Your task to perform on an android device: Search for sushi restaurants on Maps Image 0: 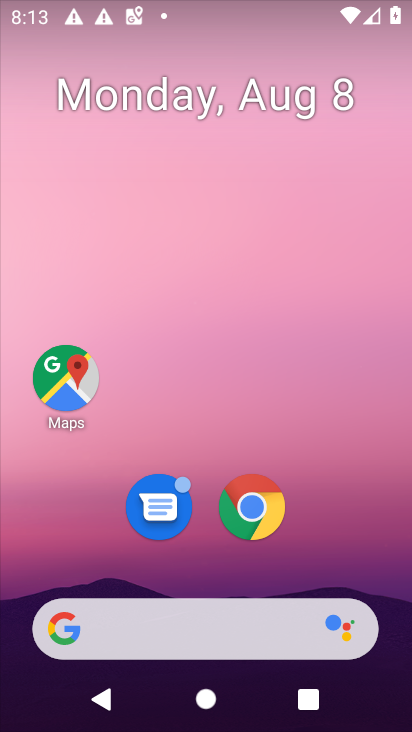
Step 0: drag from (195, 594) to (156, 115)
Your task to perform on an android device: Search for sushi restaurants on Maps Image 1: 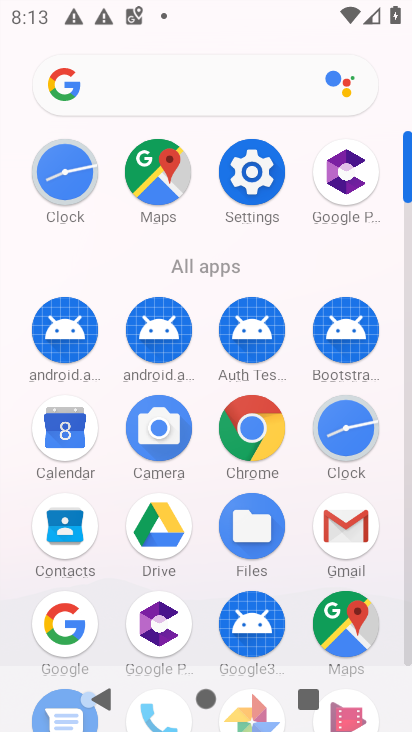
Step 1: click (341, 610)
Your task to perform on an android device: Search for sushi restaurants on Maps Image 2: 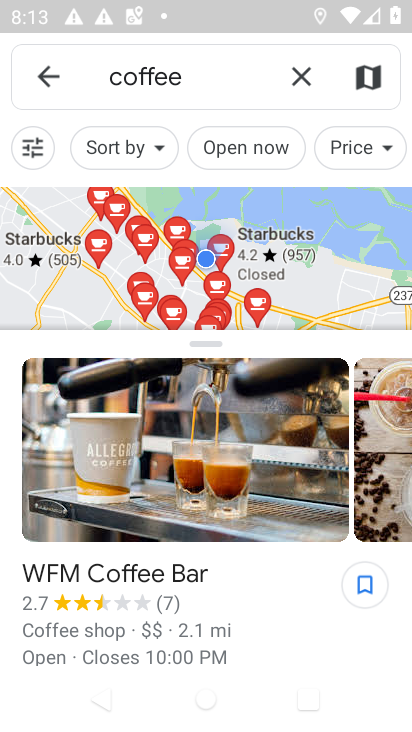
Step 2: click (60, 69)
Your task to perform on an android device: Search for sushi restaurants on Maps Image 3: 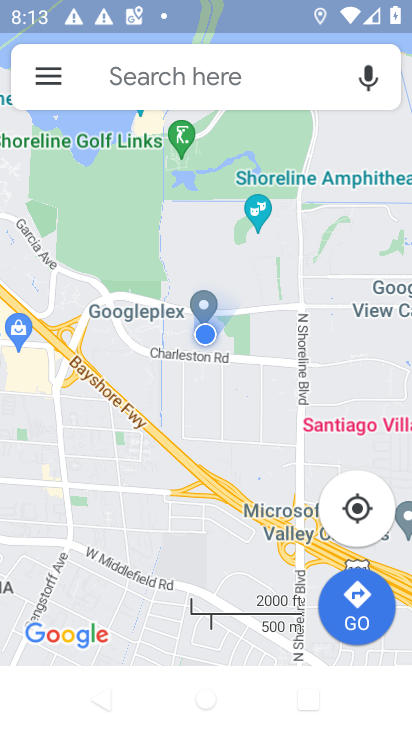
Step 3: click (109, 74)
Your task to perform on an android device: Search for sushi restaurants on Maps Image 4: 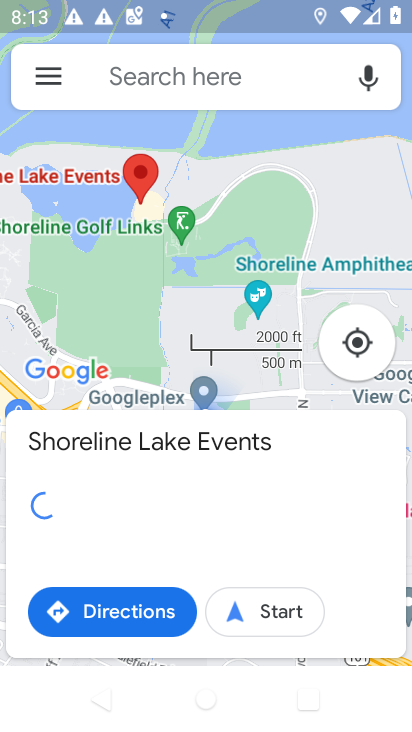
Step 4: click (193, 77)
Your task to perform on an android device: Search for sushi restaurants on Maps Image 5: 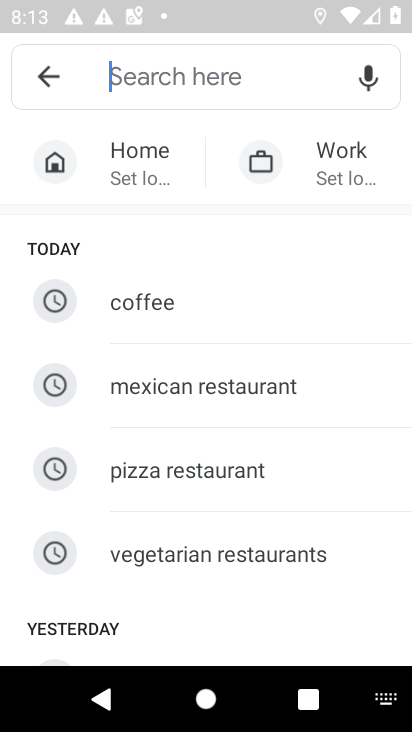
Step 5: drag from (248, 566) to (199, 144)
Your task to perform on an android device: Search for sushi restaurants on Maps Image 6: 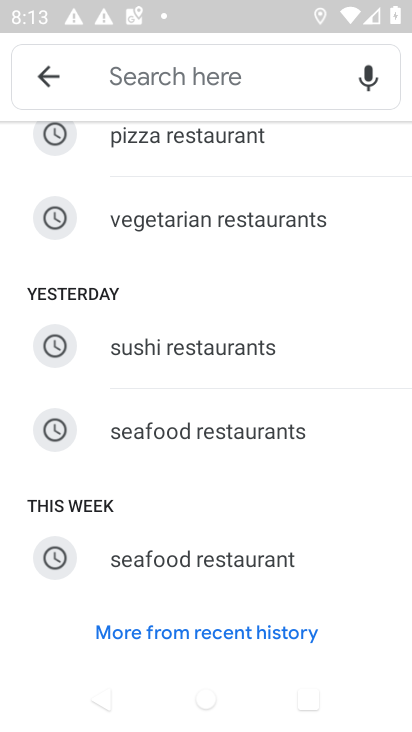
Step 6: click (179, 350)
Your task to perform on an android device: Search for sushi restaurants on Maps Image 7: 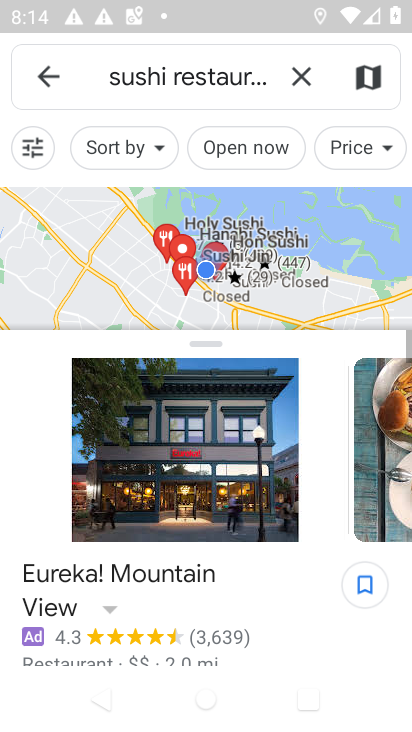
Step 7: task complete